Your task to perform on an android device: What does the iPhone 8 look like? Image 0: 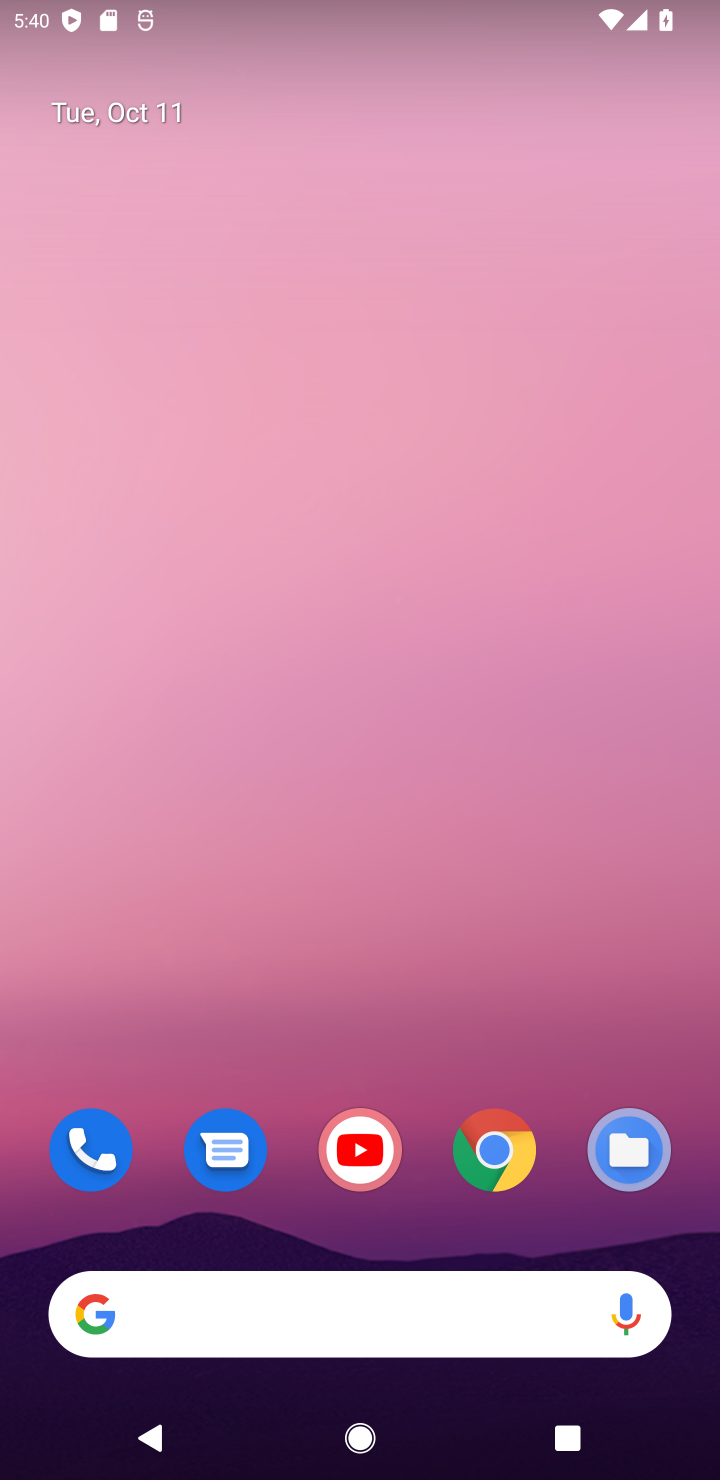
Step 0: click (487, 1147)
Your task to perform on an android device: What does the iPhone 8 look like? Image 1: 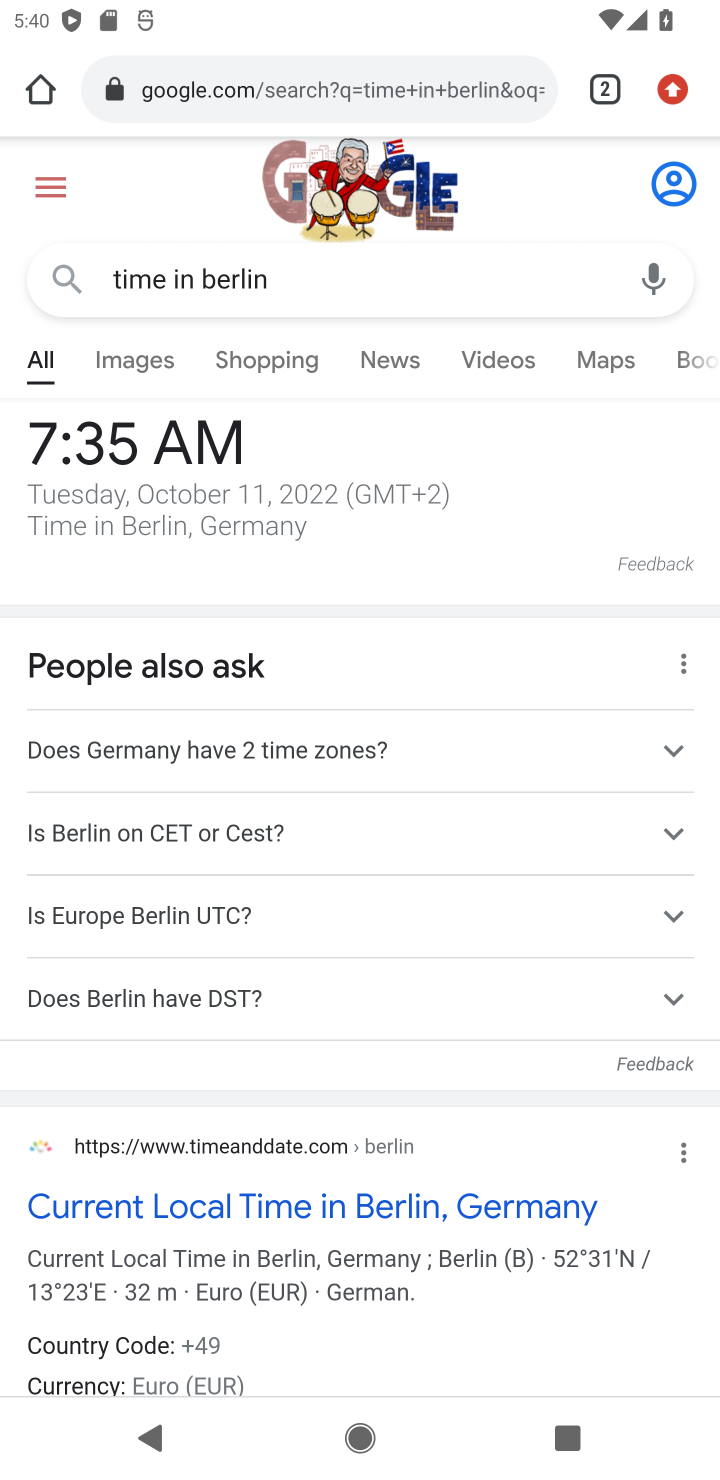
Step 1: click (285, 275)
Your task to perform on an android device: What does the iPhone 8 look like? Image 2: 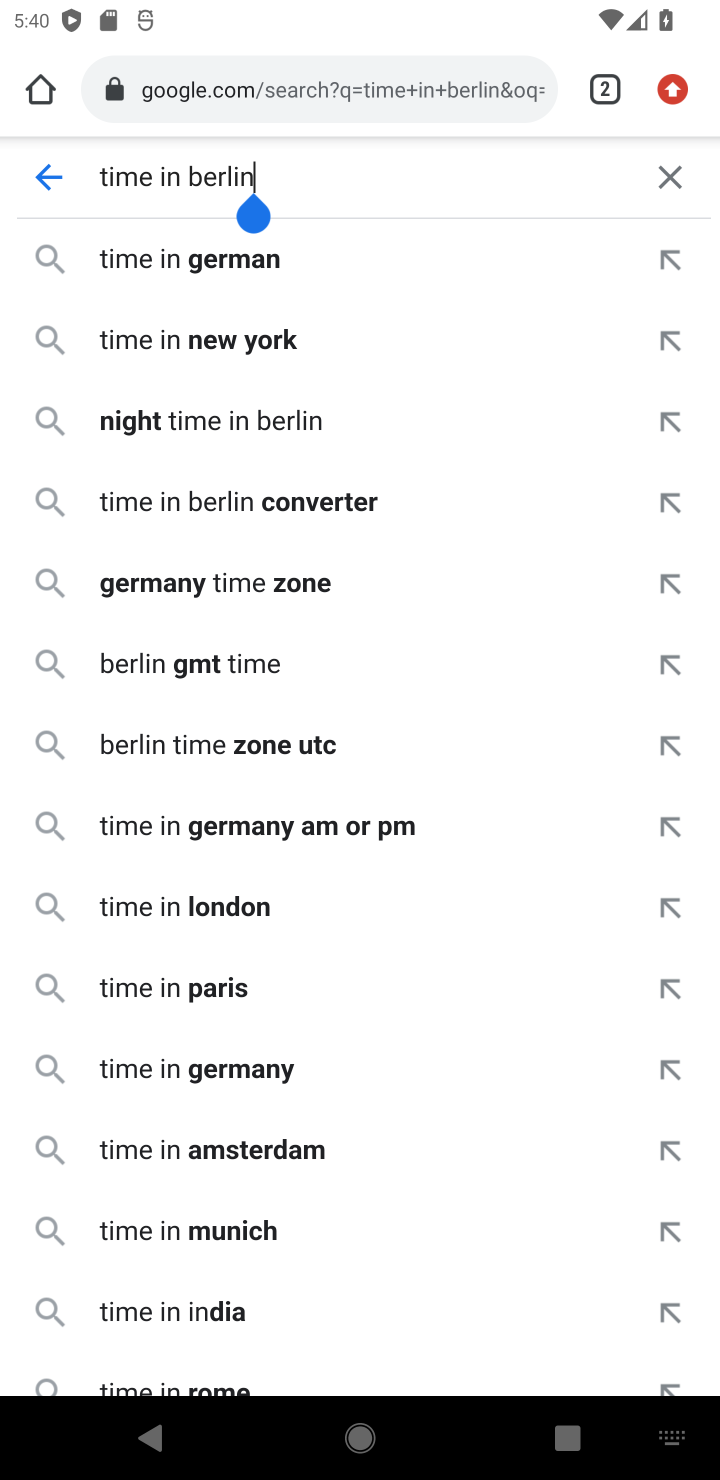
Step 2: click (653, 181)
Your task to perform on an android device: What does the iPhone 8 look like? Image 3: 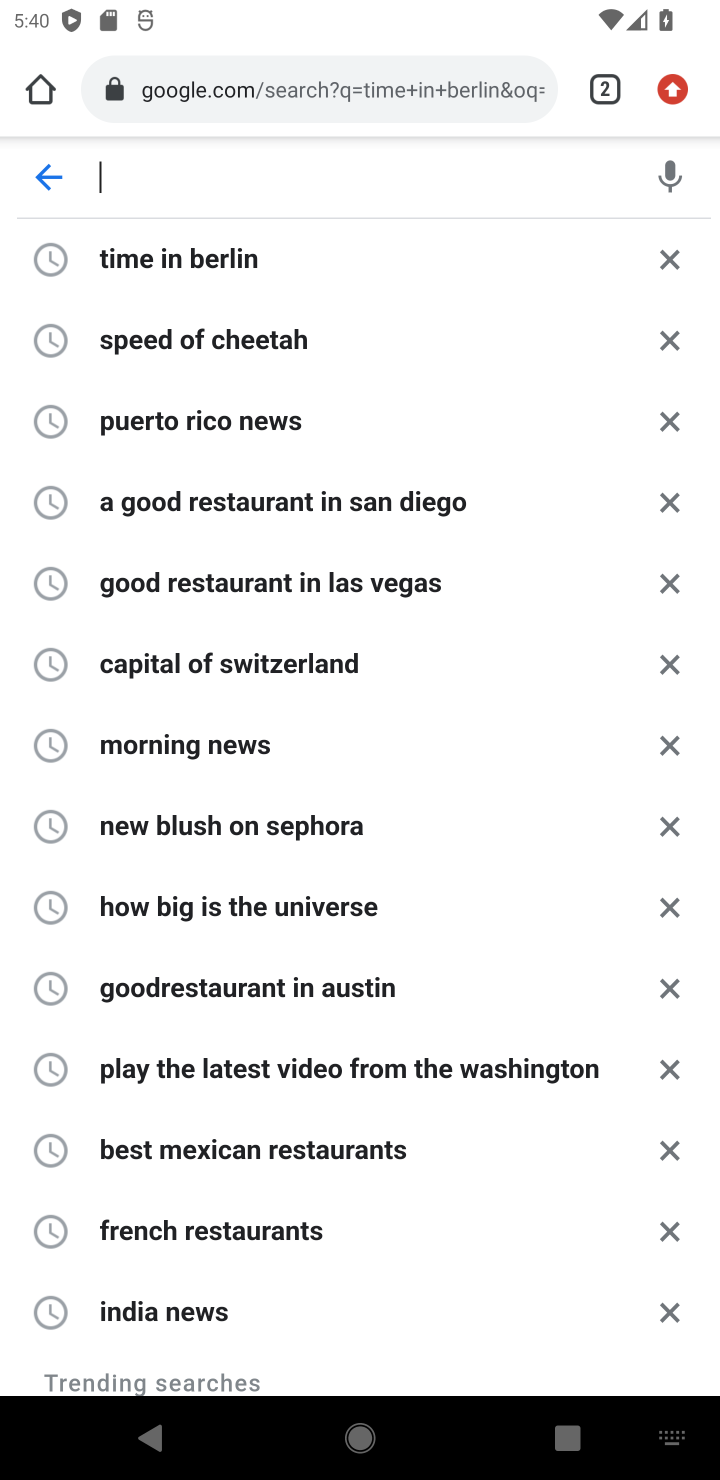
Step 3: type "iphone 8"
Your task to perform on an android device: What does the iPhone 8 look like? Image 4: 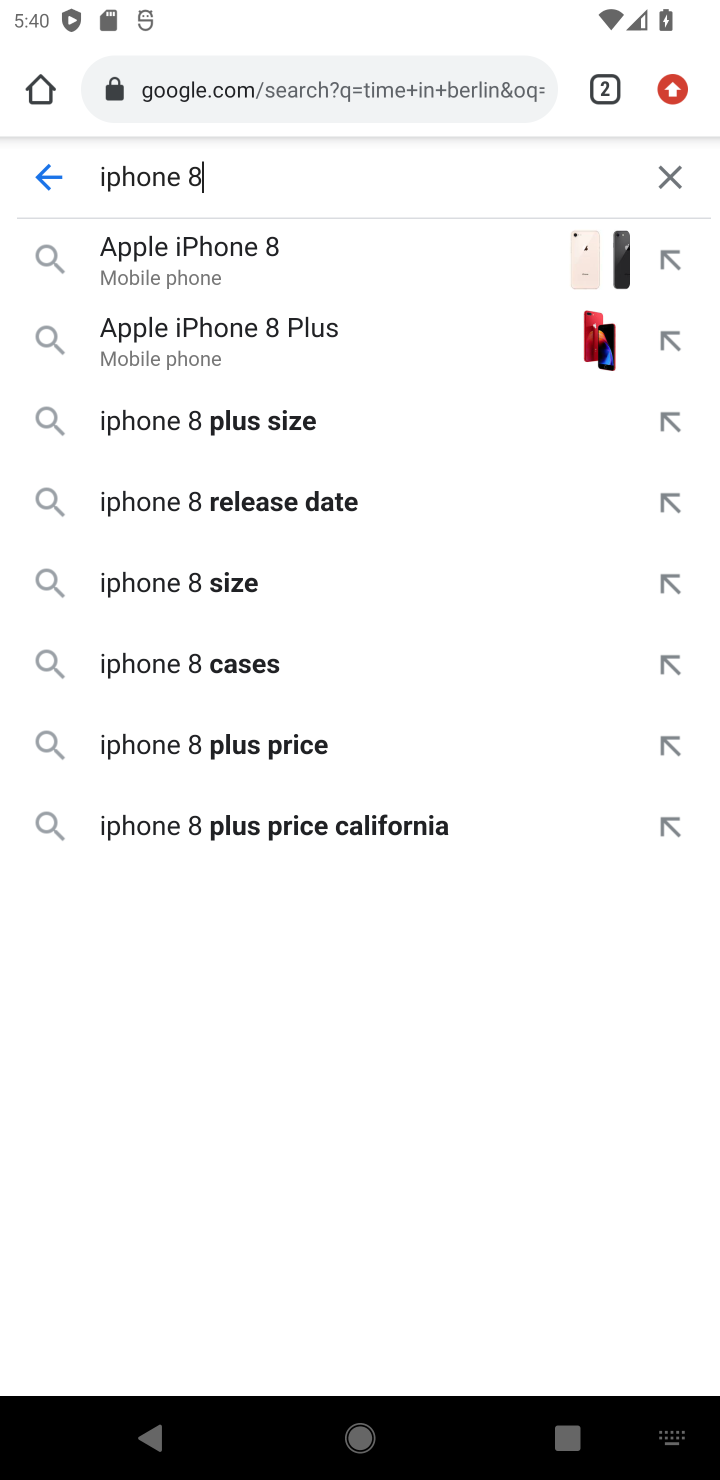
Step 4: click (216, 269)
Your task to perform on an android device: What does the iPhone 8 look like? Image 5: 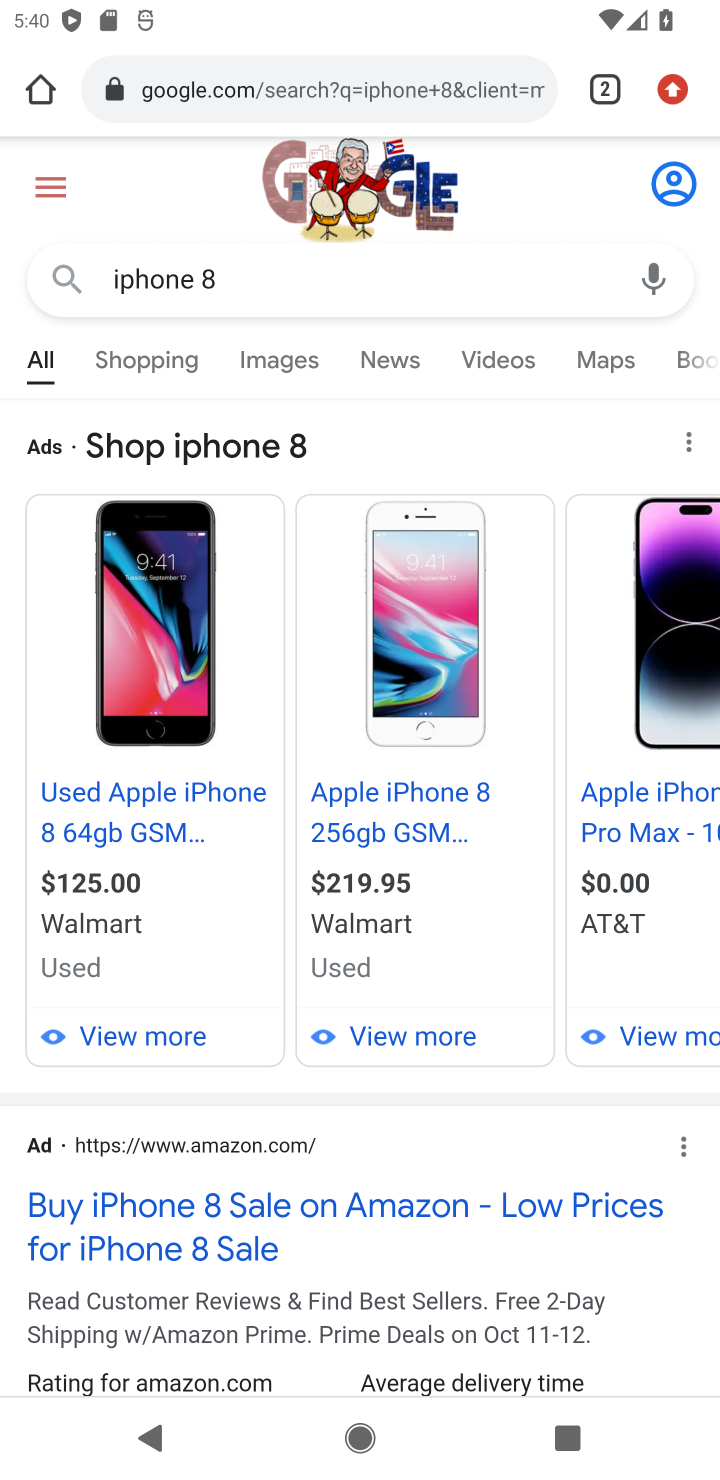
Step 5: task complete